Your task to perform on an android device: find which apps use the phone's location Image 0: 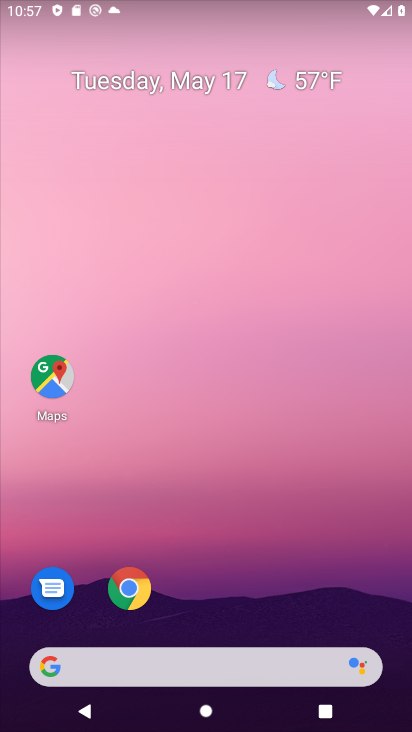
Step 0: drag from (241, 583) to (220, 68)
Your task to perform on an android device: find which apps use the phone's location Image 1: 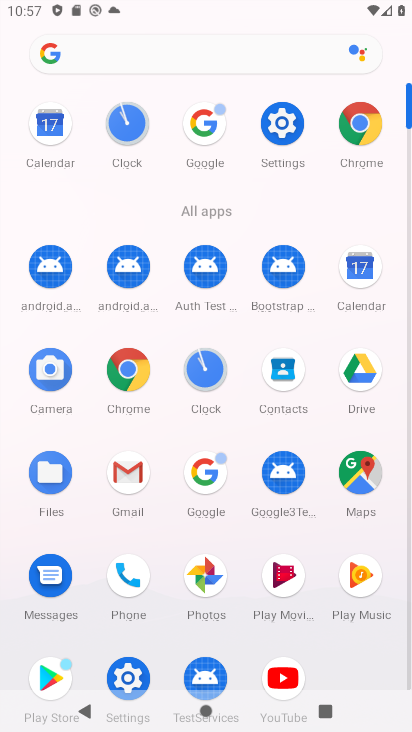
Step 1: click (285, 143)
Your task to perform on an android device: find which apps use the phone's location Image 2: 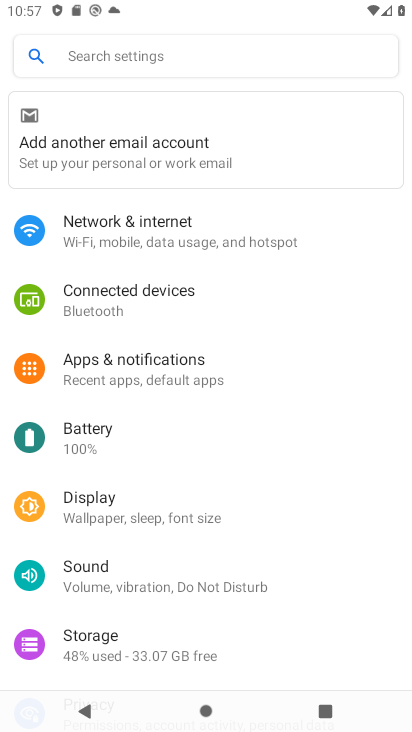
Step 2: drag from (179, 613) to (188, 280)
Your task to perform on an android device: find which apps use the phone's location Image 3: 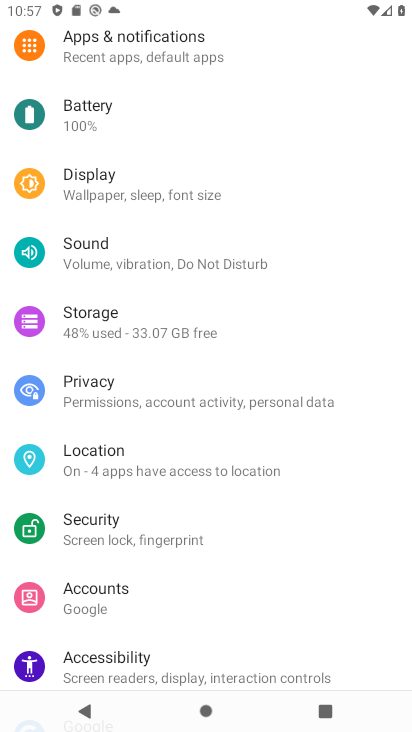
Step 3: click (148, 471)
Your task to perform on an android device: find which apps use the phone's location Image 4: 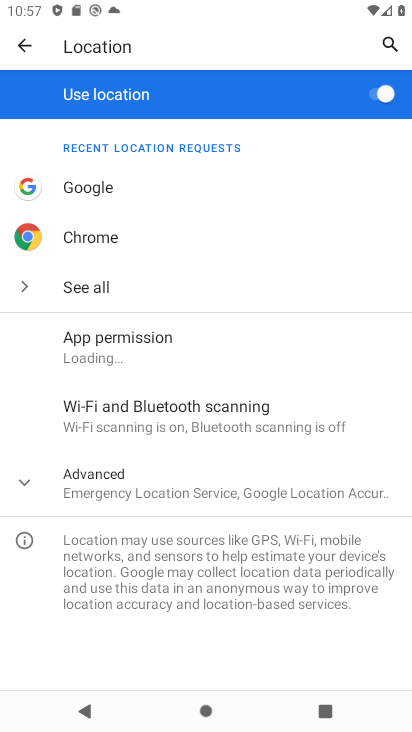
Step 4: click (96, 197)
Your task to perform on an android device: find which apps use the phone's location Image 5: 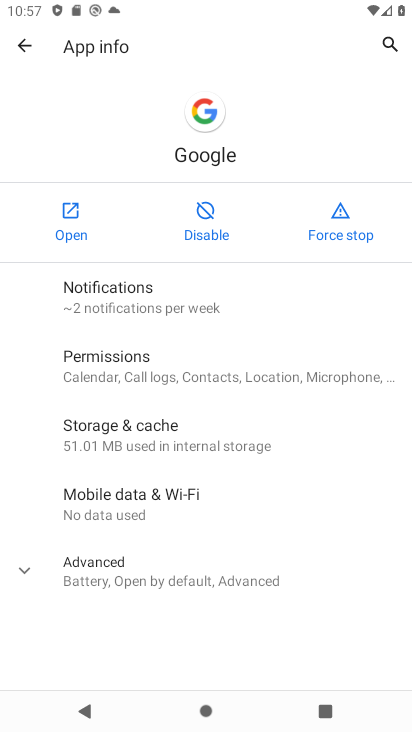
Step 5: click (223, 374)
Your task to perform on an android device: find which apps use the phone's location Image 6: 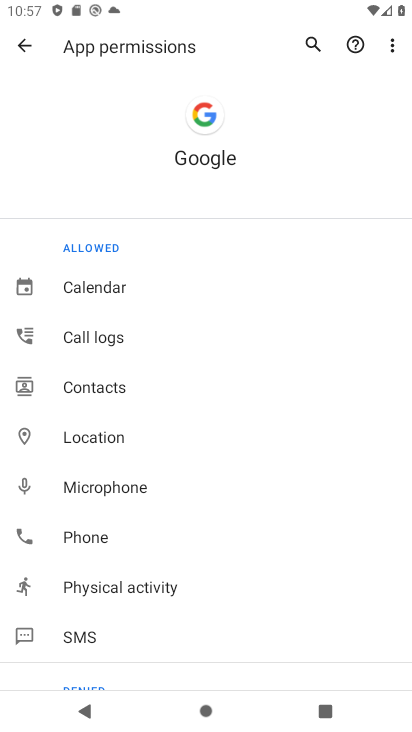
Step 6: click (73, 445)
Your task to perform on an android device: find which apps use the phone's location Image 7: 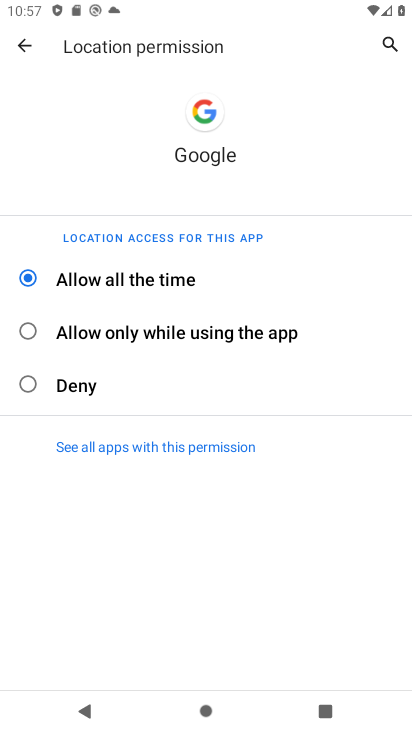
Step 7: task complete